Your task to perform on an android device: Open eBay Image 0: 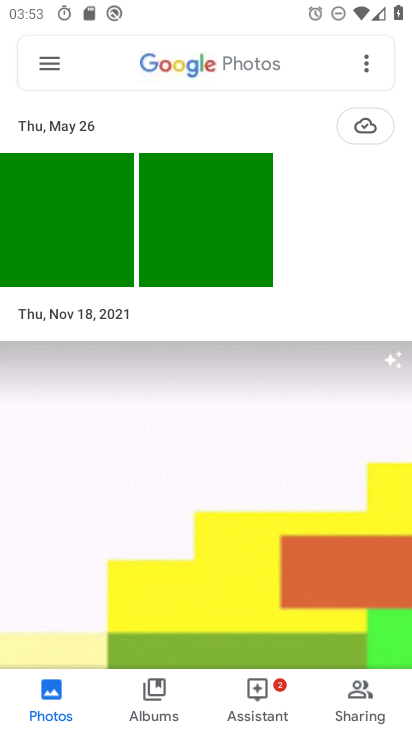
Step 0: press home button
Your task to perform on an android device: Open eBay Image 1: 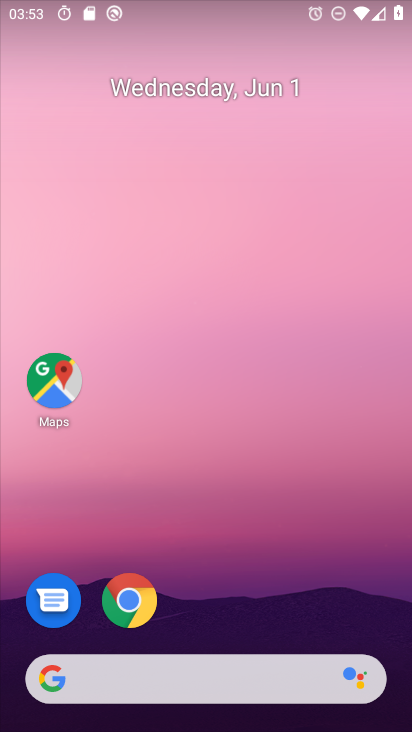
Step 1: click (128, 604)
Your task to perform on an android device: Open eBay Image 2: 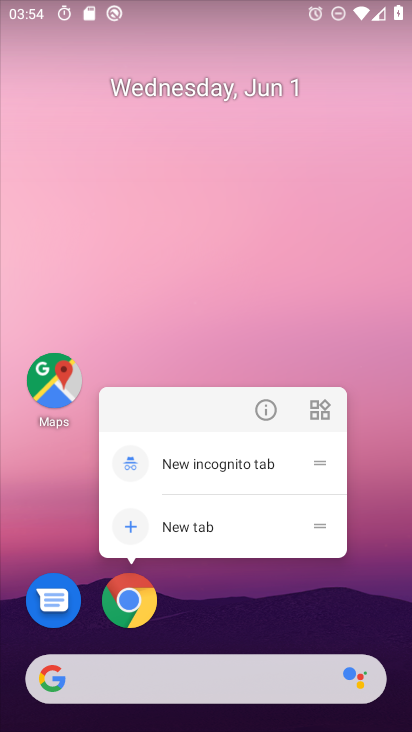
Step 2: click (142, 613)
Your task to perform on an android device: Open eBay Image 3: 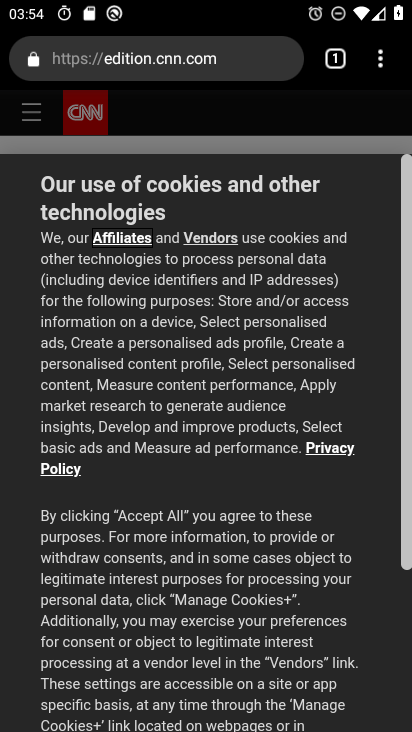
Step 3: click (171, 60)
Your task to perform on an android device: Open eBay Image 4: 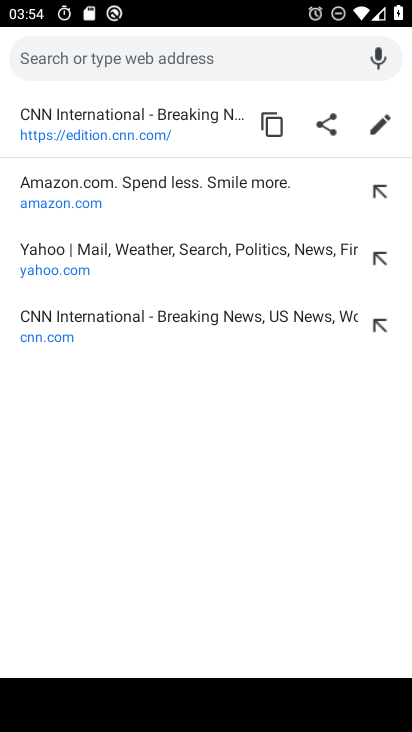
Step 4: type "www"
Your task to perform on an android device: Open eBay Image 5: 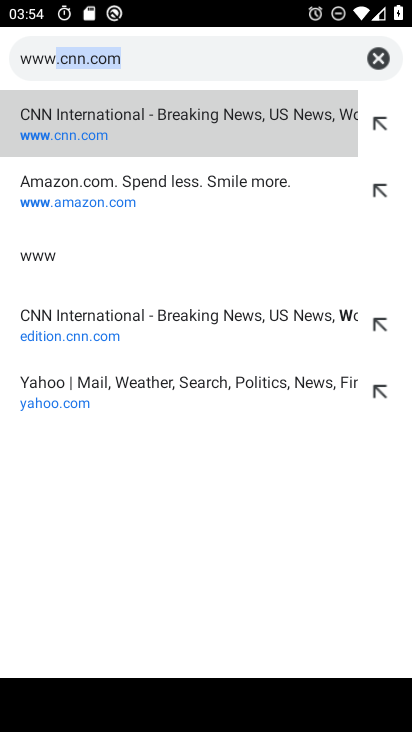
Step 5: press back button
Your task to perform on an android device: Open eBay Image 6: 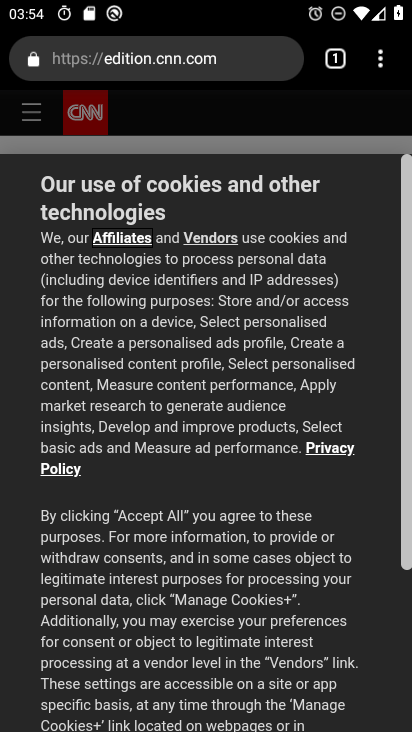
Step 6: press back button
Your task to perform on an android device: Open eBay Image 7: 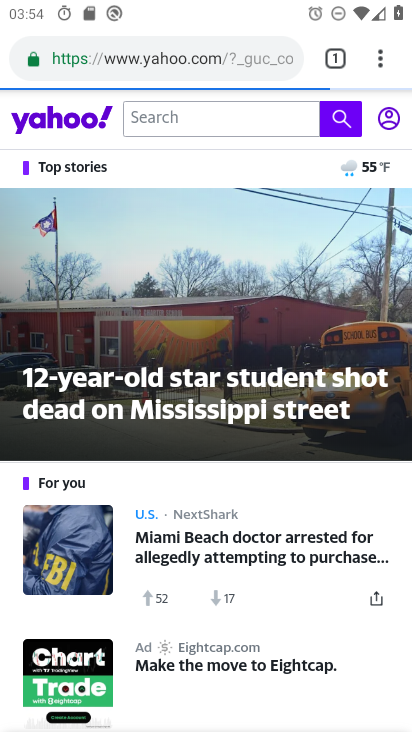
Step 7: press back button
Your task to perform on an android device: Open eBay Image 8: 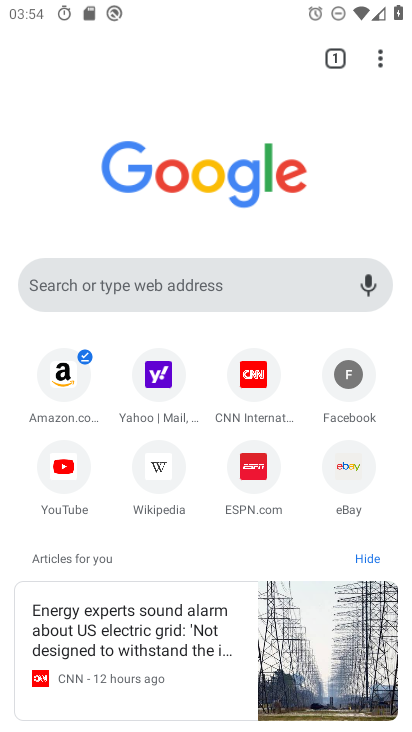
Step 8: click (326, 474)
Your task to perform on an android device: Open eBay Image 9: 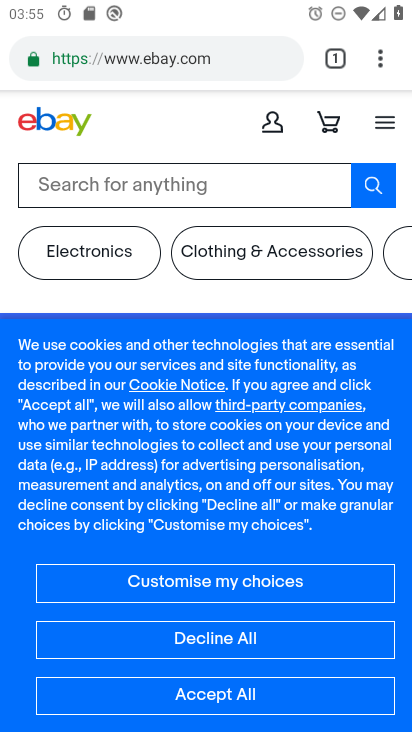
Step 9: task complete